Your task to perform on an android device: open sync settings in chrome Image 0: 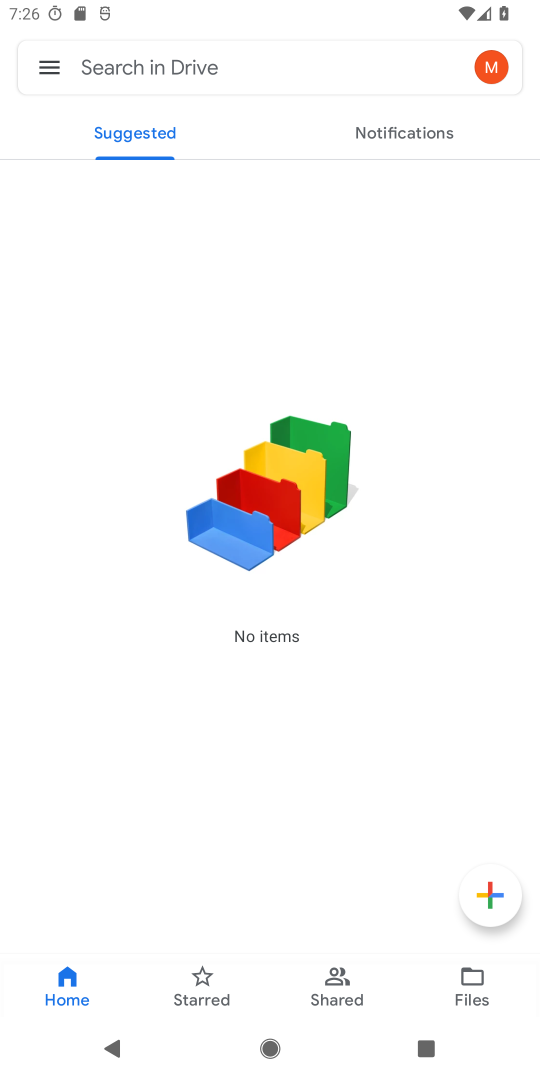
Step 0: press back button
Your task to perform on an android device: open sync settings in chrome Image 1: 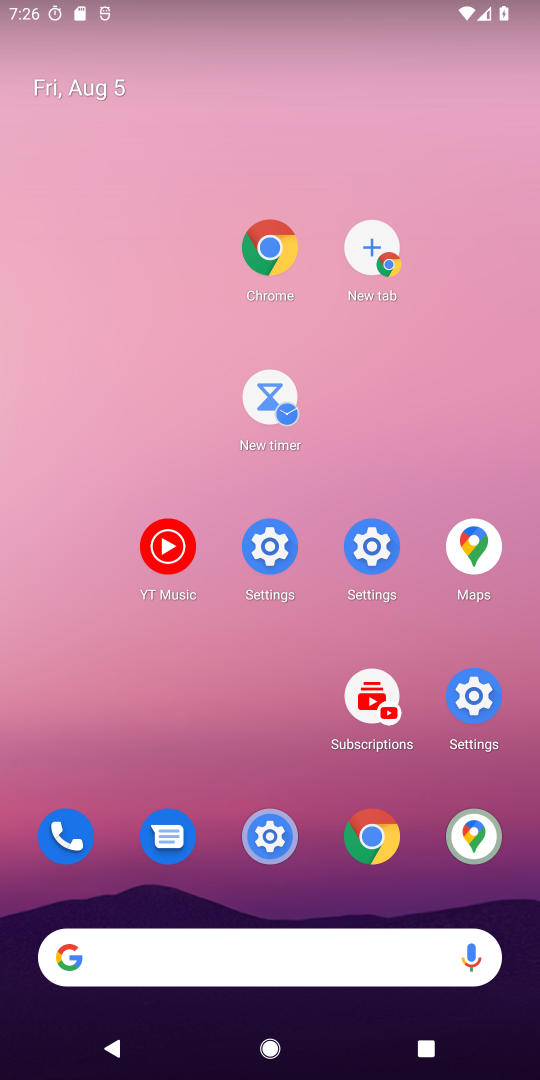
Step 1: click (193, 167)
Your task to perform on an android device: open sync settings in chrome Image 2: 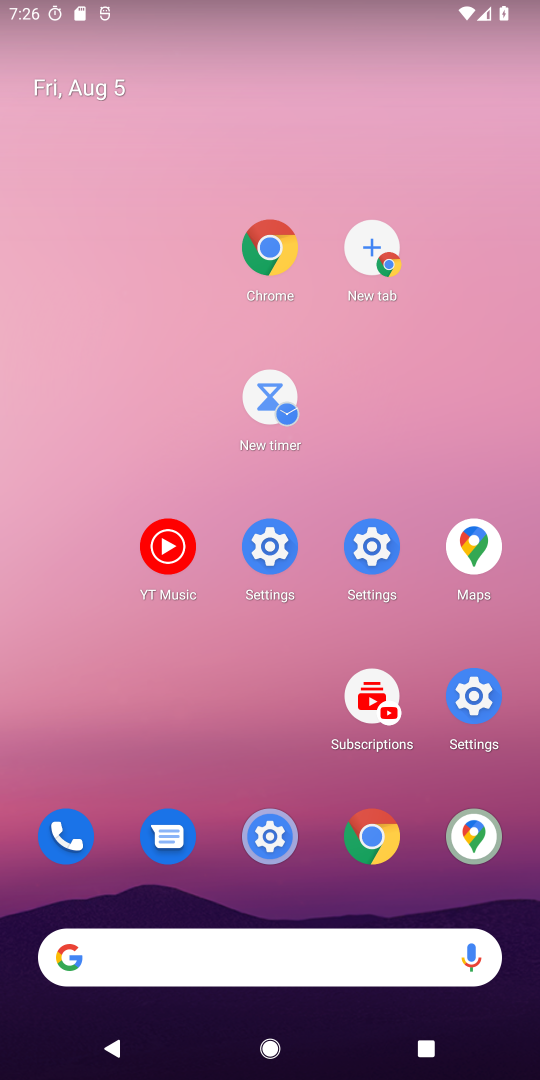
Step 2: click (226, 256)
Your task to perform on an android device: open sync settings in chrome Image 3: 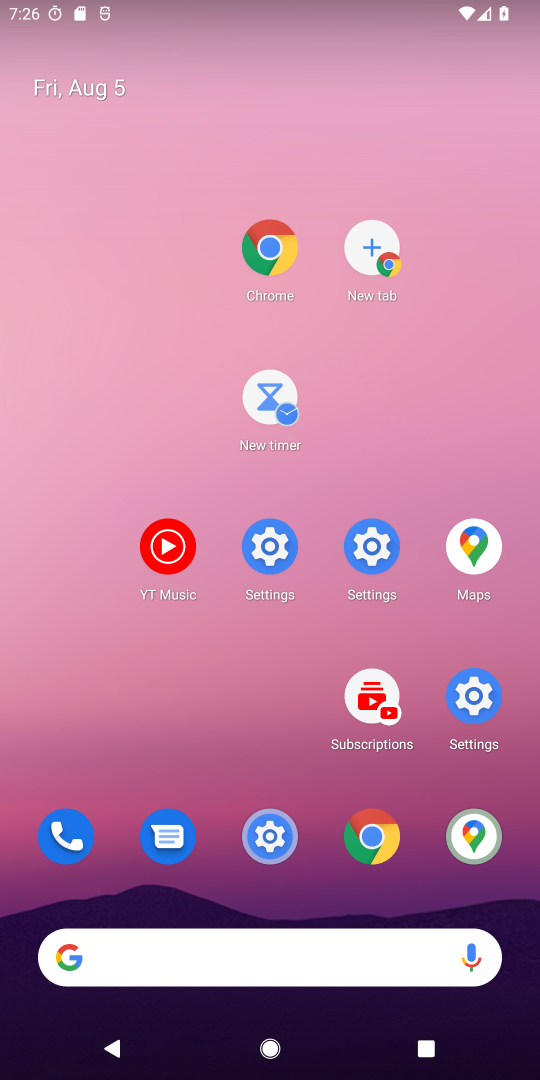
Step 3: click (233, 273)
Your task to perform on an android device: open sync settings in chrome Image 4: 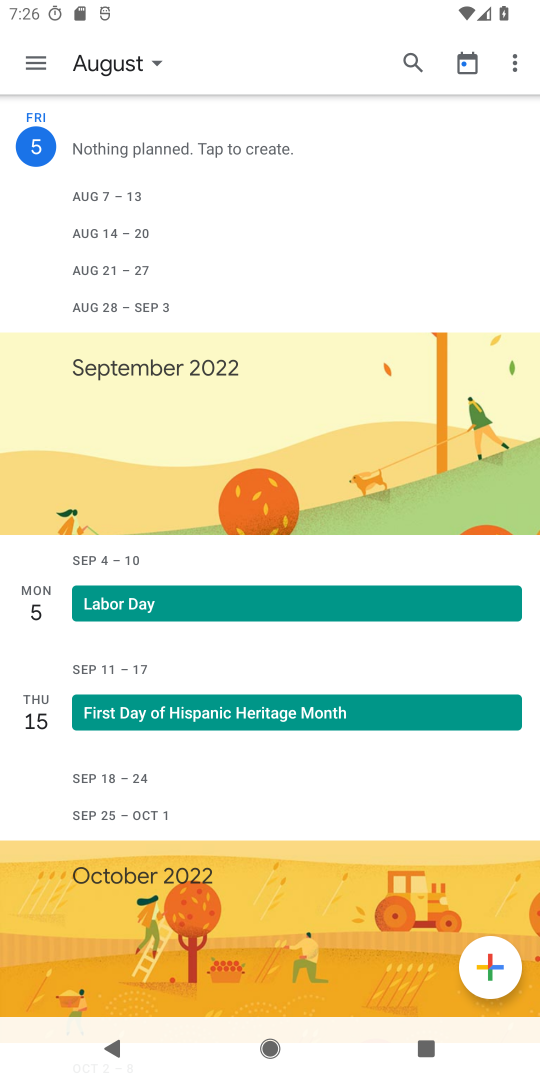
Step 4: click (156, 56)
Your task to perform on an android device: open sync settings in chrome Image 5: 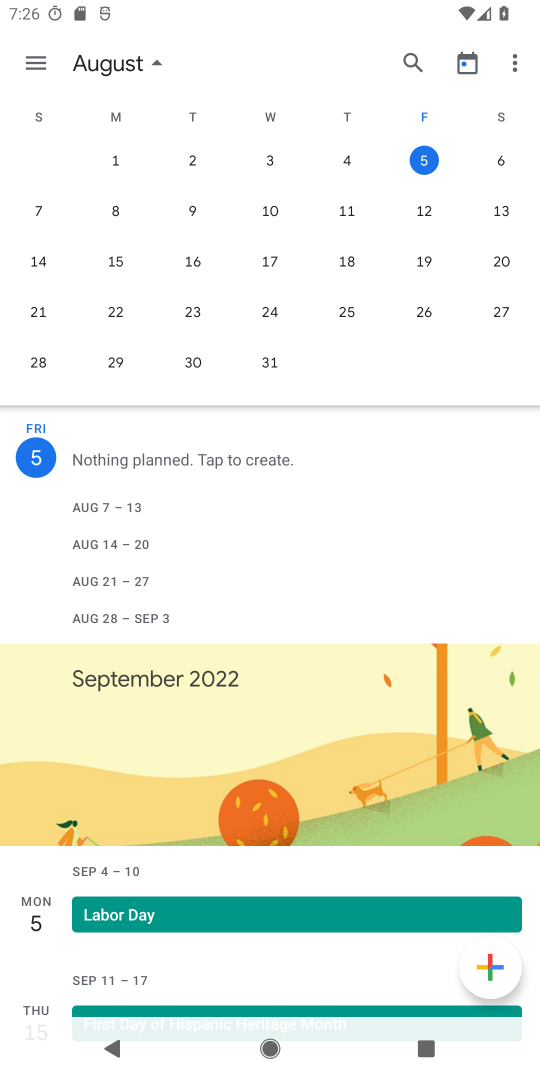
Step 5: drag from (359, 231) to (22, 301)
Your task to perform on an android device: open sync settings in chrome Image 6: 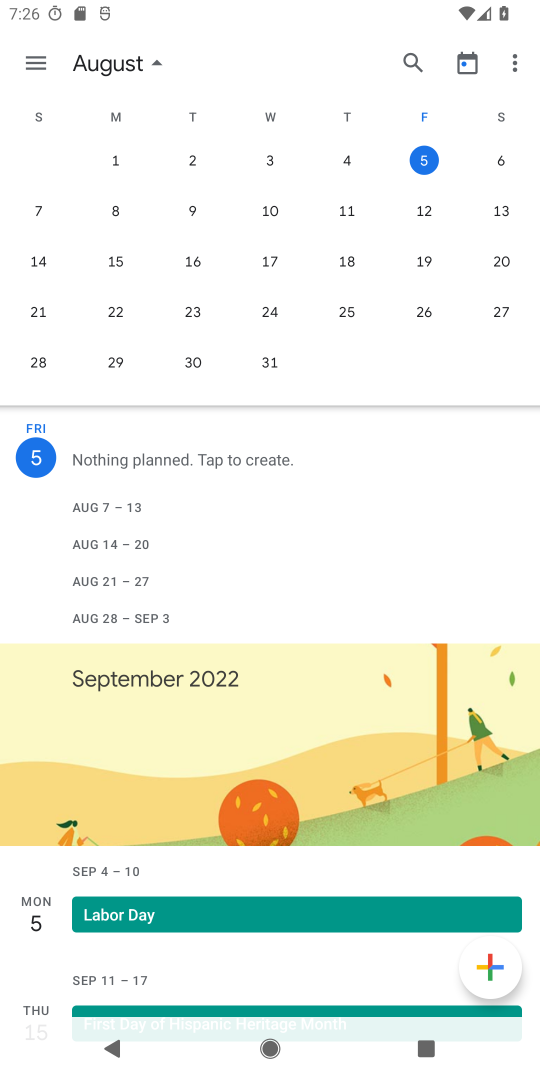
Step 6: press back button
Your task to perform on an android device: open sync settings in chrome Image 7: 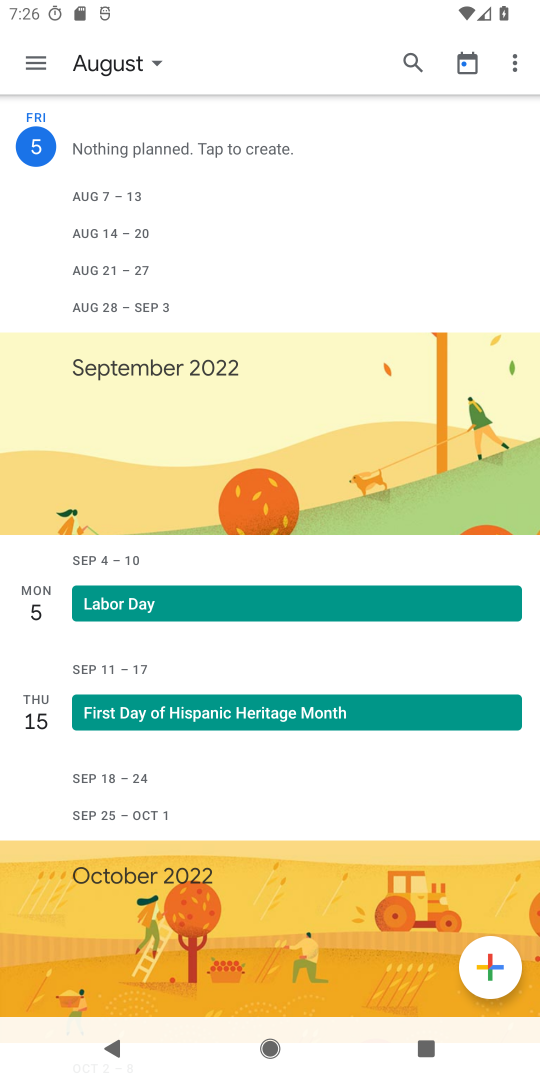
Step 7: click (148, 52)
Your task to perform on an android device: open sync settings in chrome Image 8: 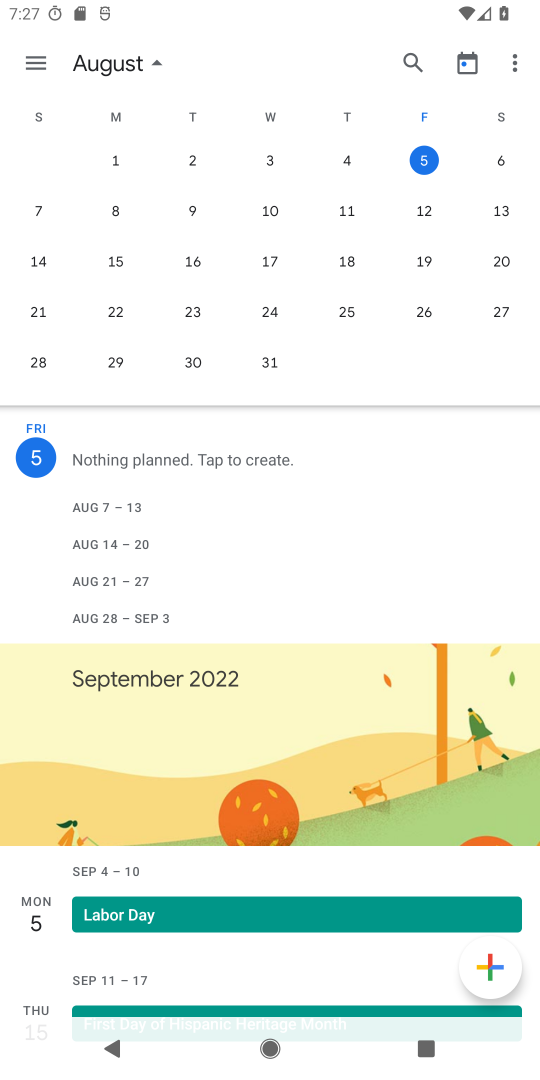
Step 8: press home button
Your task to perform on an android device: open sync settings in chrome Image 9: 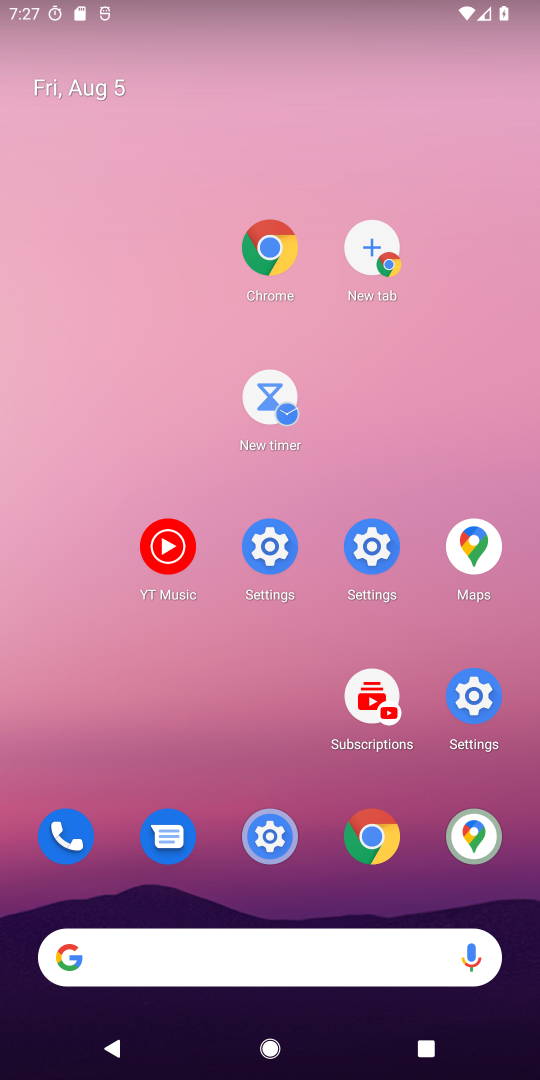
Step 9: drag from (377, 628) to (352, 134)
Your task to perform on an android device: open sync settings in chrome Image 10: 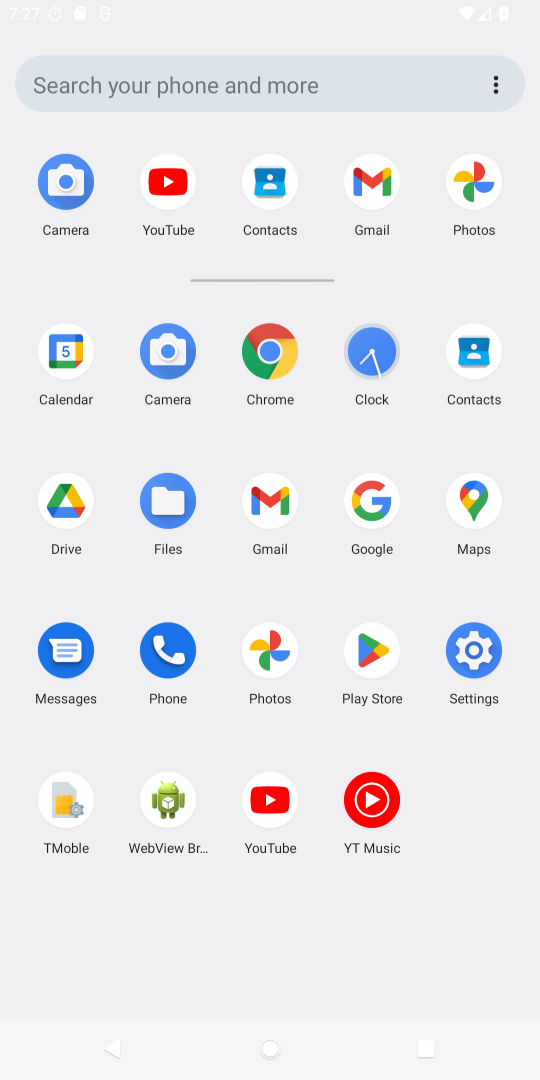
Step 10: drag from (360, 529) to (282, 209)
Your task to perform on an android device: open sync settings in chrome Image 11: 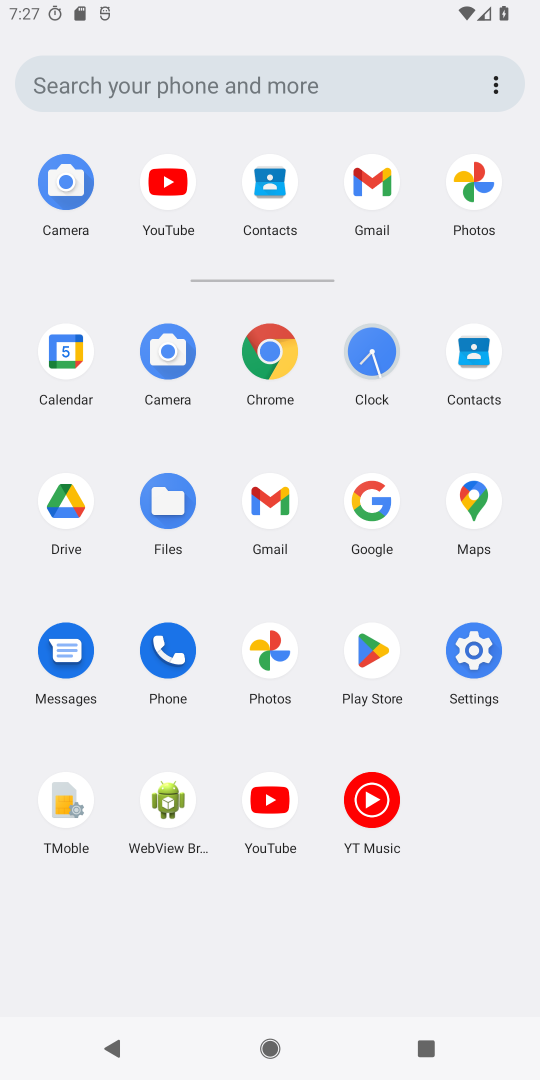
Step 11: click (260, 370)
Your task to perform on an android device: open sync settings in chrome Image 12: 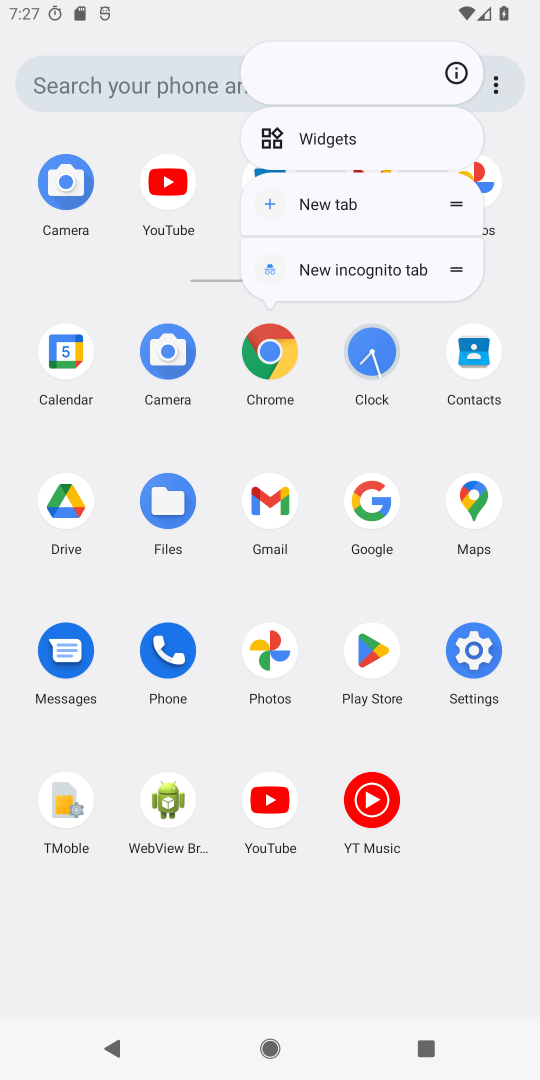
Step 12: click (260, 370)
Your task to perform on an android device: open sync settings in chrome Image 13: 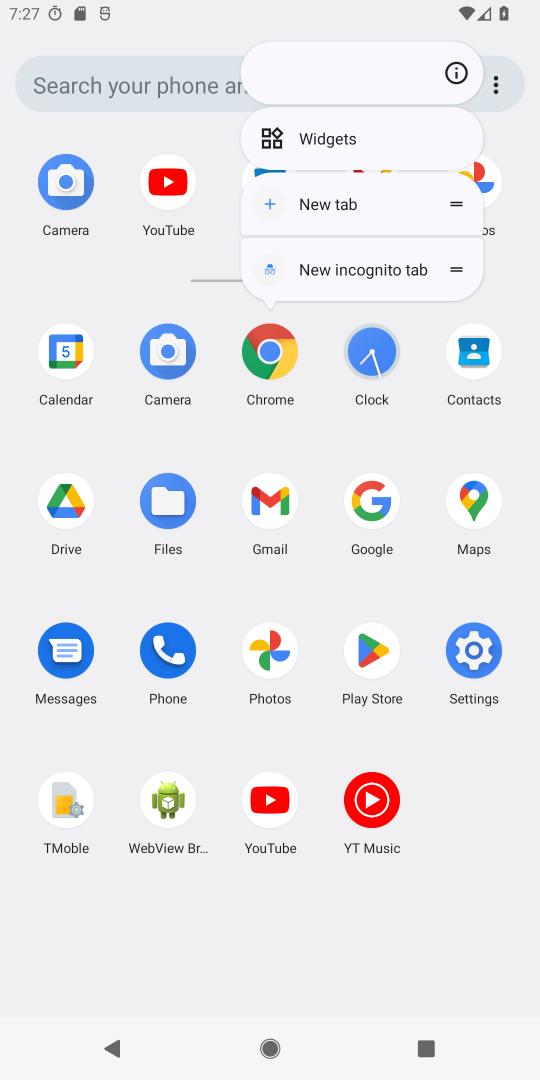
Step 13: click (263, 354)
Your task to perform on an android device: open sync settings in chrome Image 14: 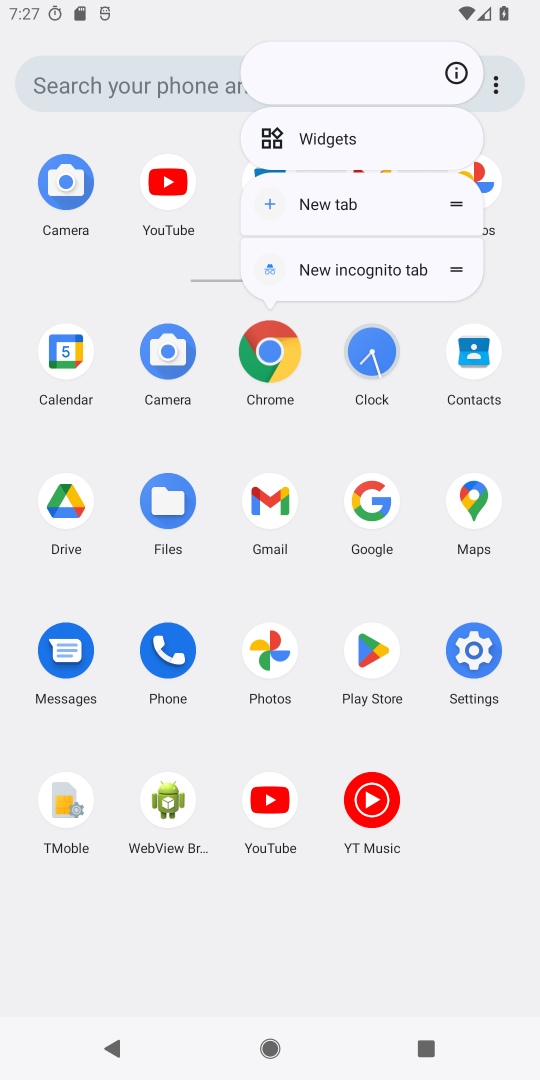
Step 14: click (261, 353)
Your task to perform on an android device: open sync settings in chrome Image 15: 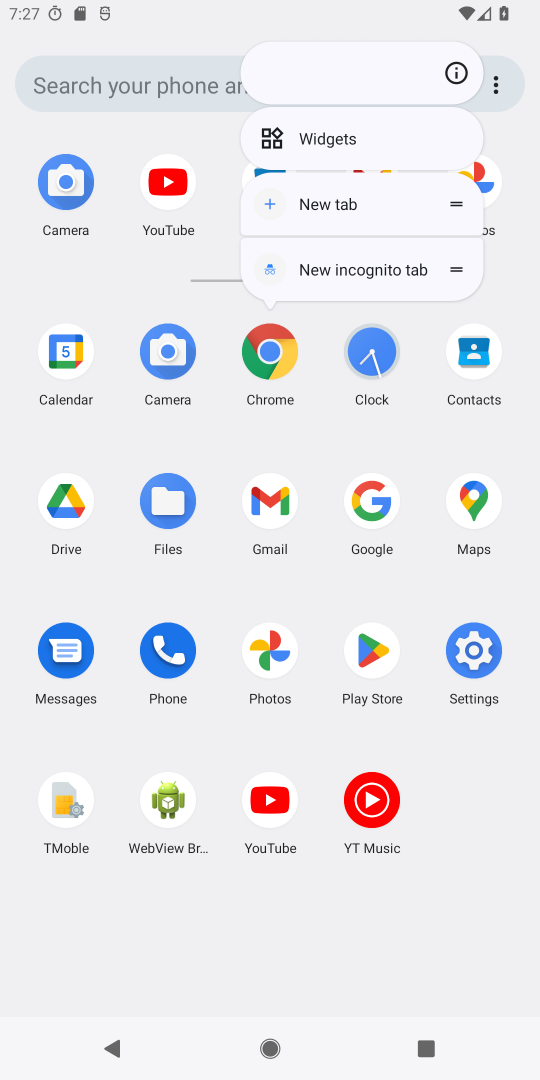
Step 15: click (260, 353)
Your task to perform on an android device: open sync settings in chrome Image 16: 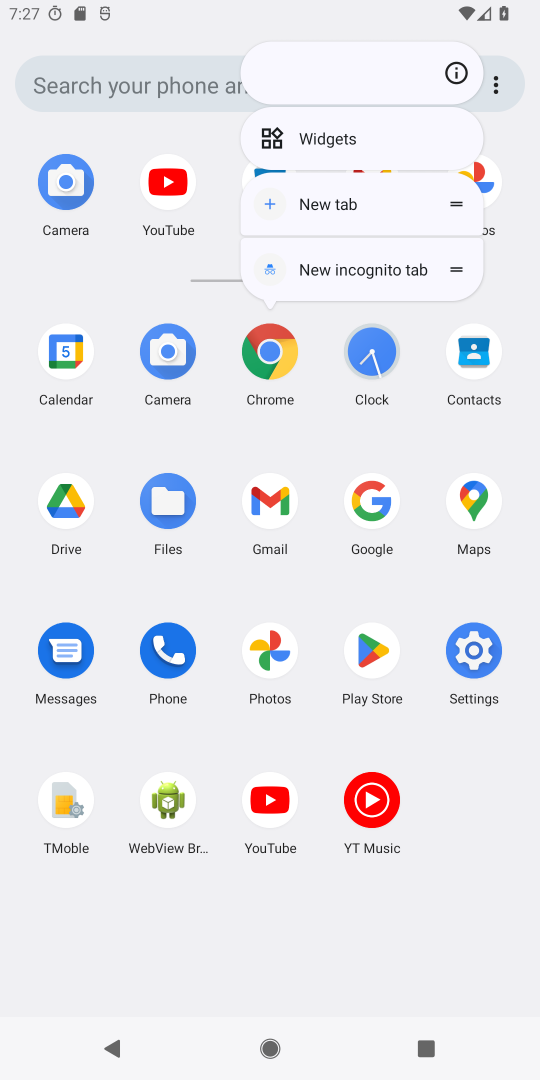
Step 16: click (260, 353)
Your task to perform on an android device: open sync settings in chrome Image 17: 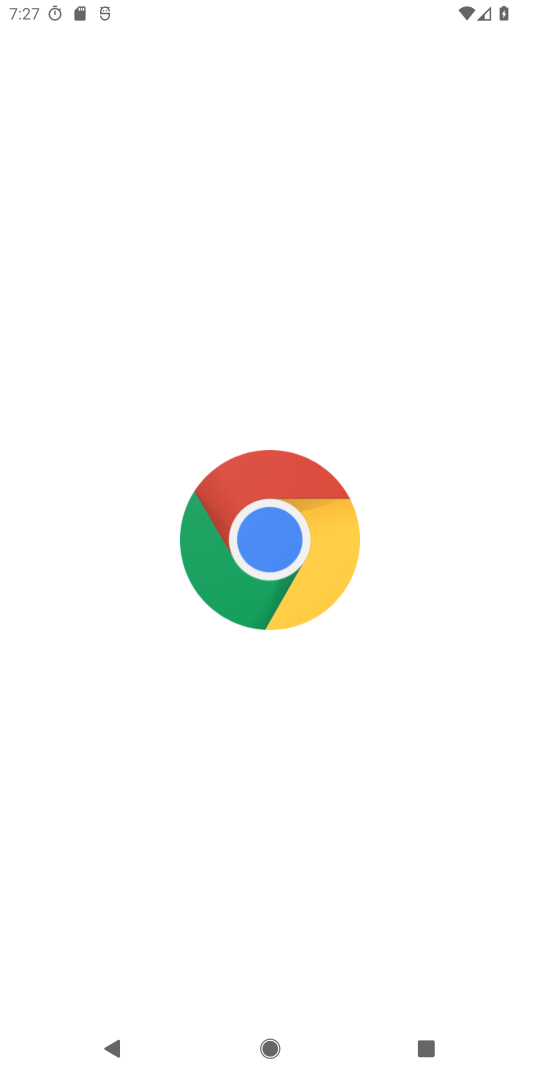
Step 17: click (260, 353)
Your task to perform on an android device: open sync settings in chrome Image 18: 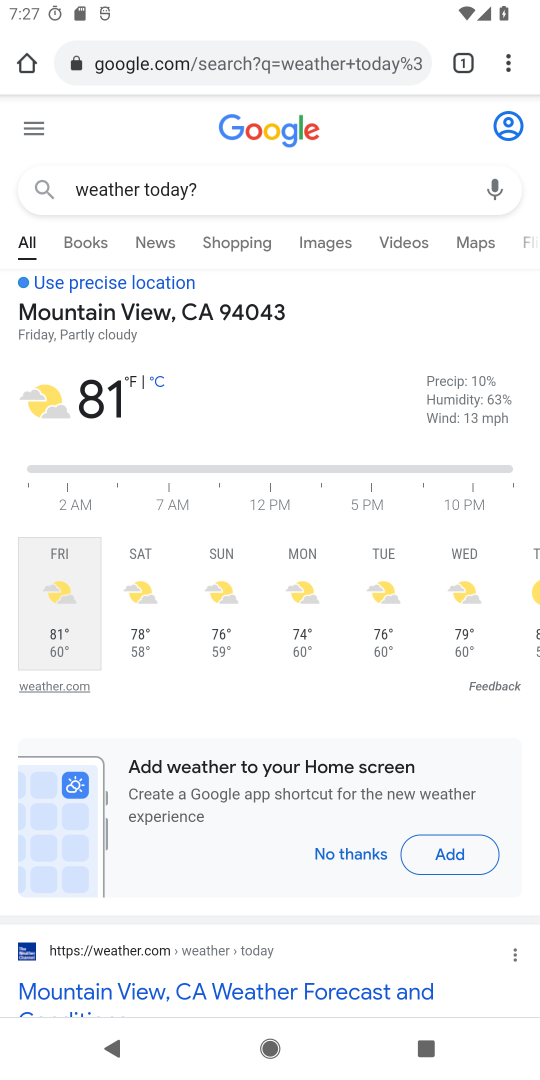
Step 18: press back button
Your task to perform on an android device: open sync settings in chrome Image 19: 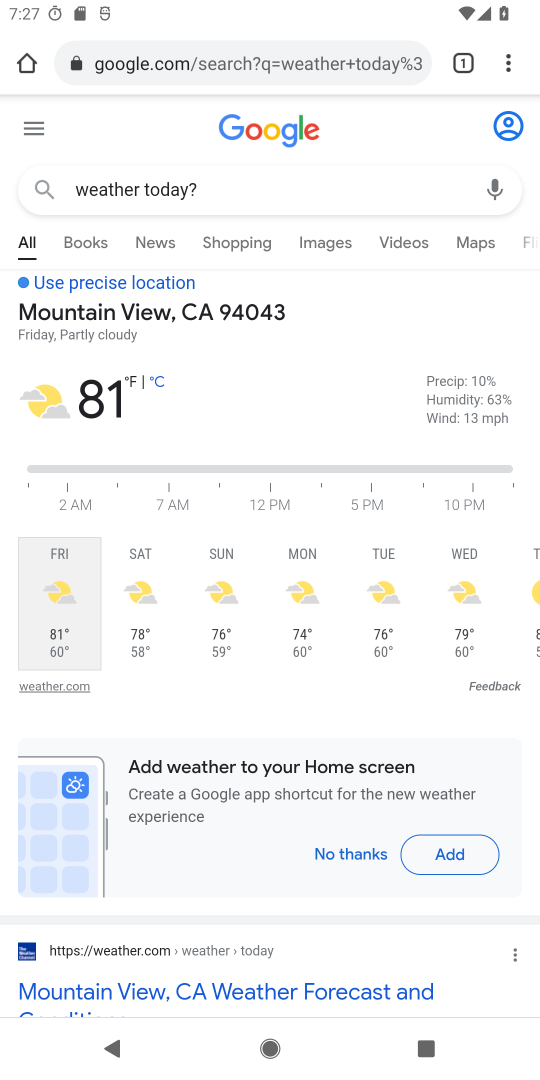
Step 19: press back button
Your task to perform on an android device: open sync settings in chrome Image 20: 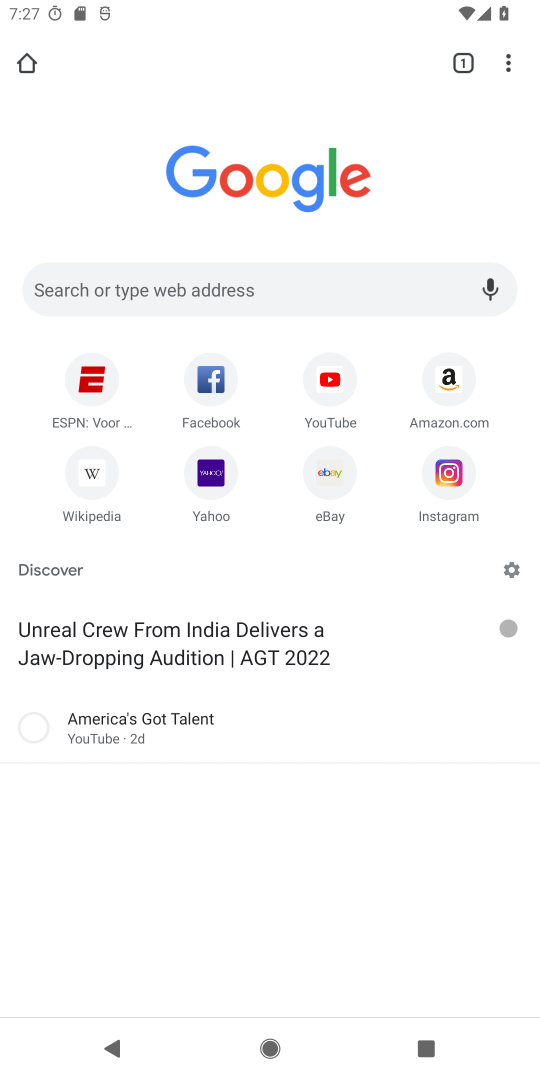
Step 20: press back button
Your task to perform on an android device: open sync settings in chrome Image 21: 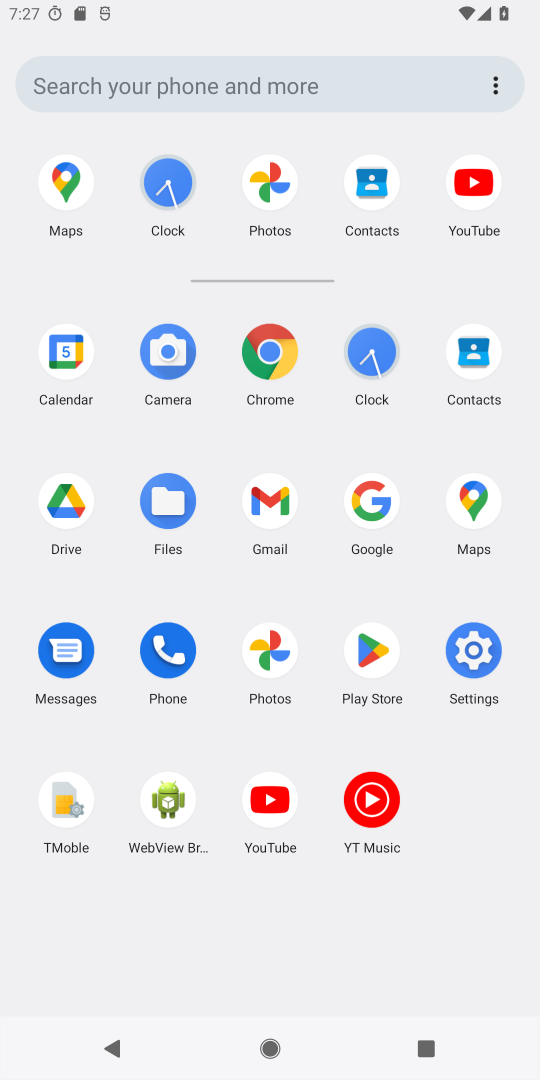
Step 21: press back button
Your task to perform on an android device: open sync settings in chrome Image 22: 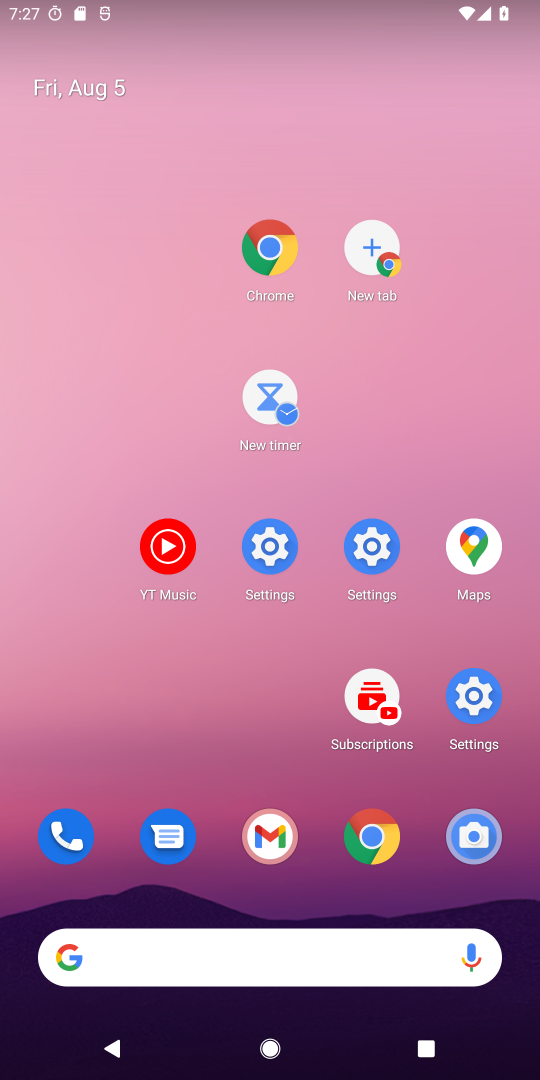
Step 22: click (151, 278)
Your task to perform on an android device: open sync settings in chrome Image 23: 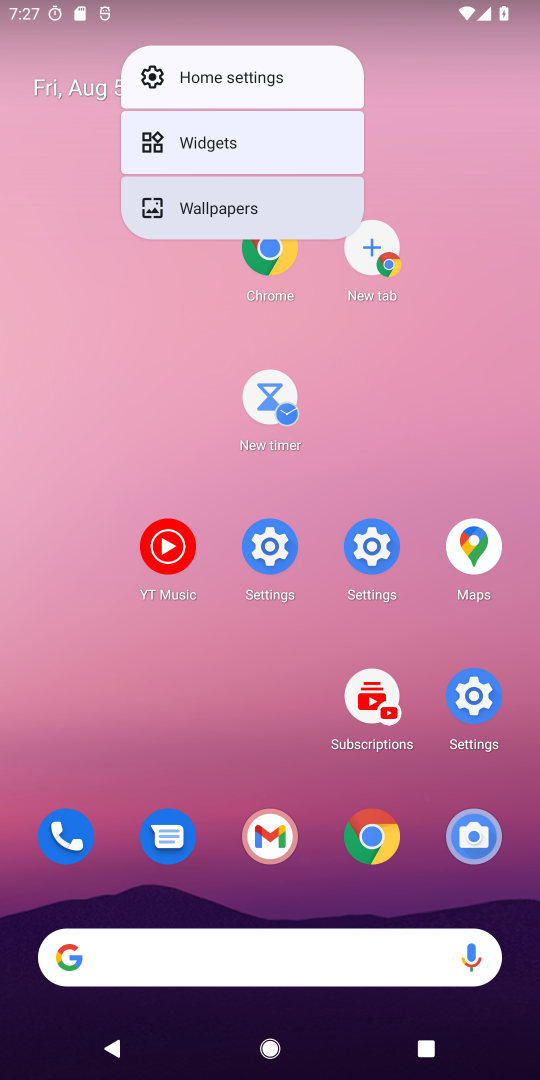
Step 23: drag from (308, 762) to (308, 314)
Your task to perform on an android device: open sync settings in chrome Image 24: 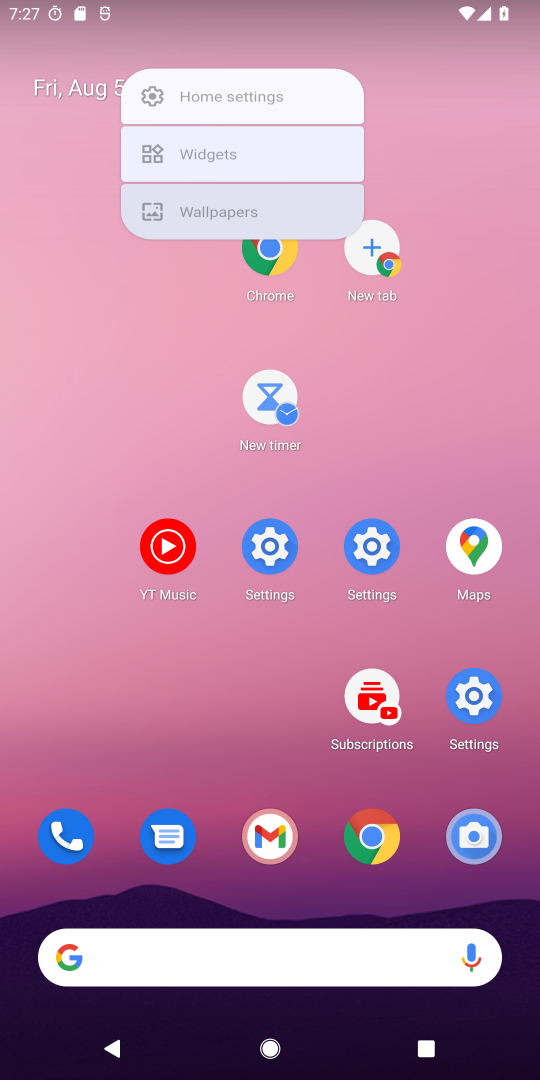
Step 24: drag from (297, 443) to (264, 210)
Your task to perform on an android device: open sync settings in chrome Image 25: 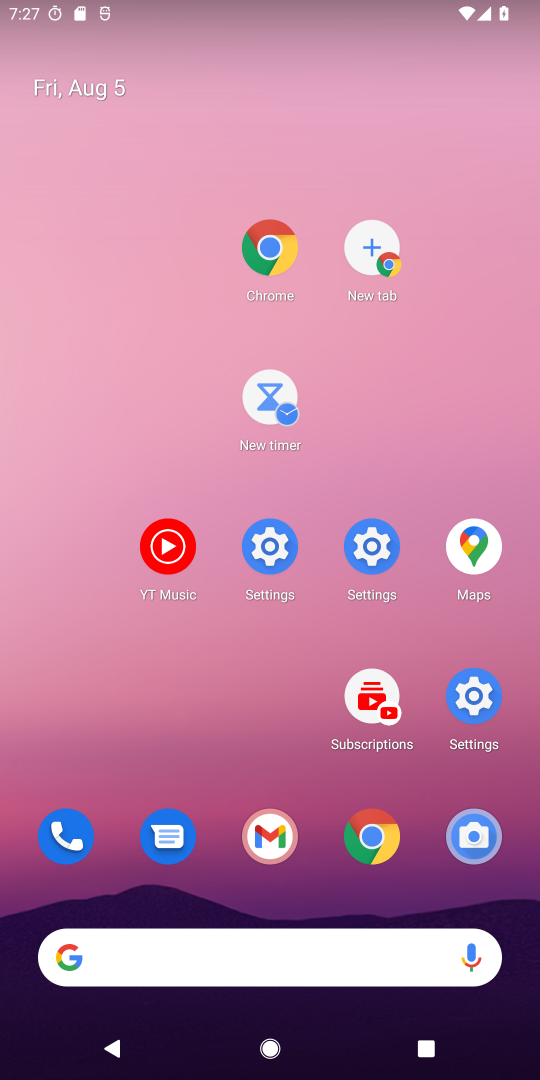
Step 25: drag from (236, 476) to (246, 122)
Your task to perform on an android device: open sync settings in chrome Image 26: 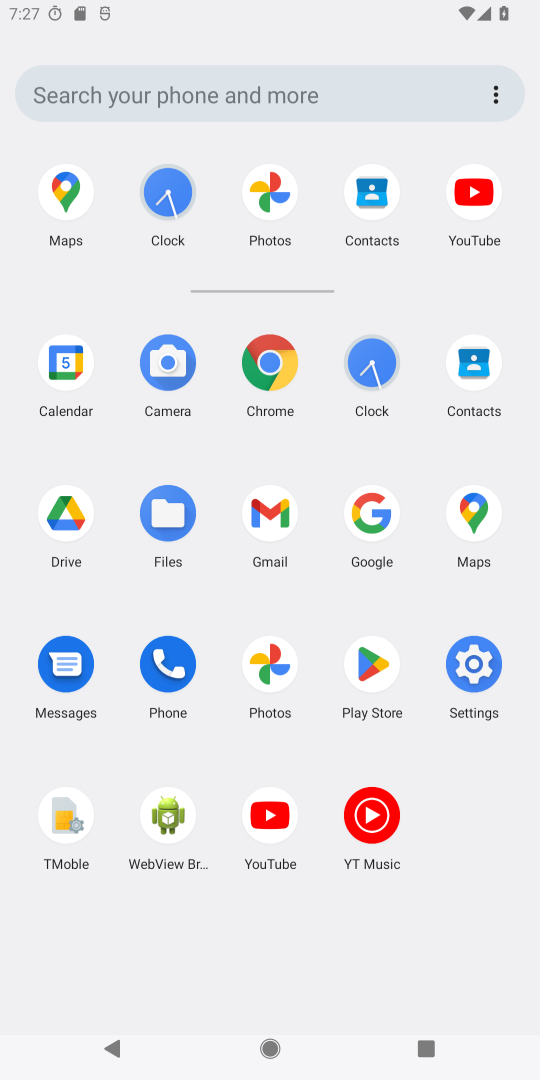
Step 26: drag from (346, 691) to (268, 344)
Your task to perform on an android device: open sync settings in chrome Image 27: 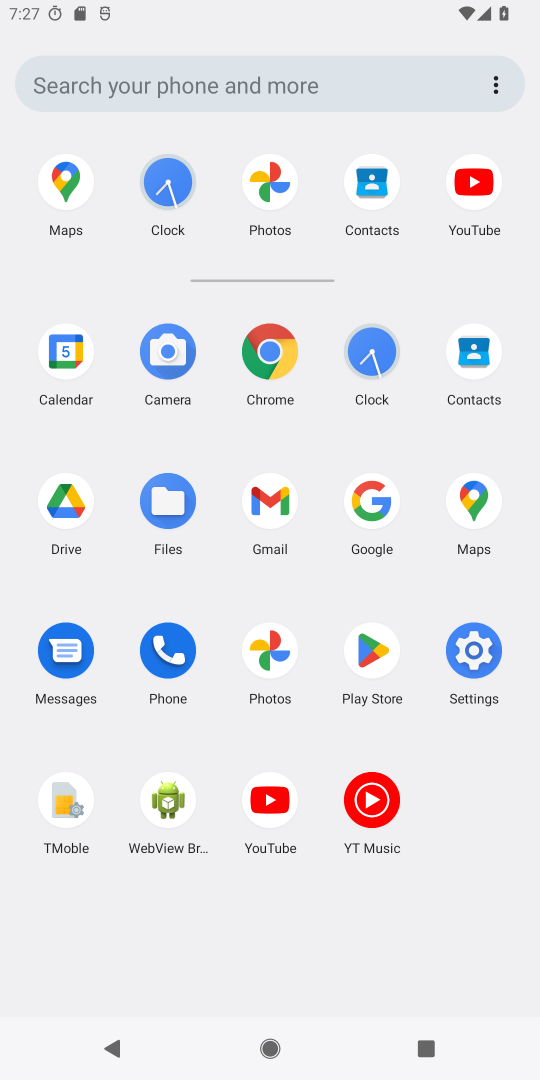
Step 27: click (113, 79)
Your task to perform on an android device: open sync settings in chrome Image 28: 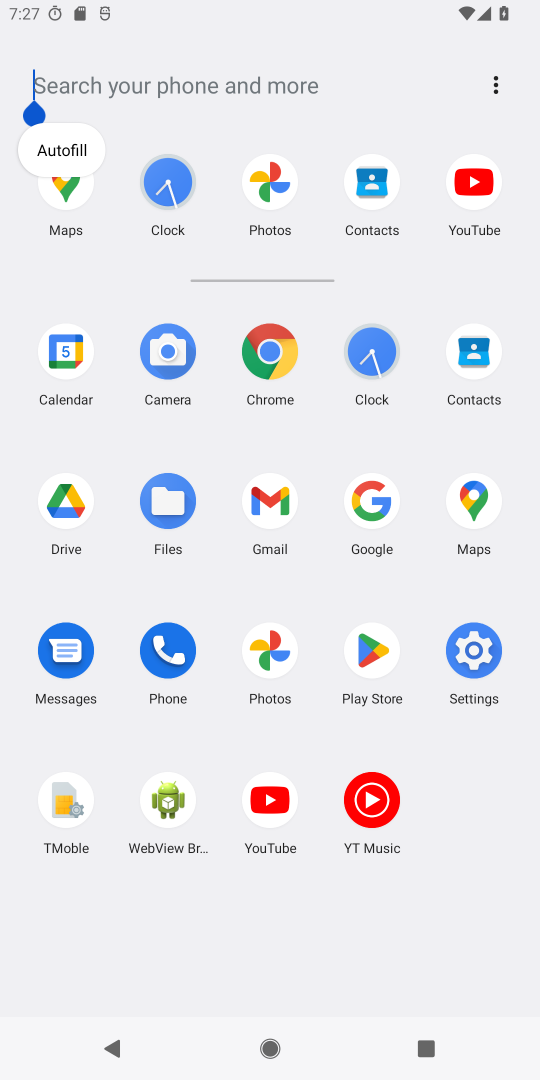
Step 28: click (267, 350)
Your task to perform on an android device: open sync settings in chrome Image 29: 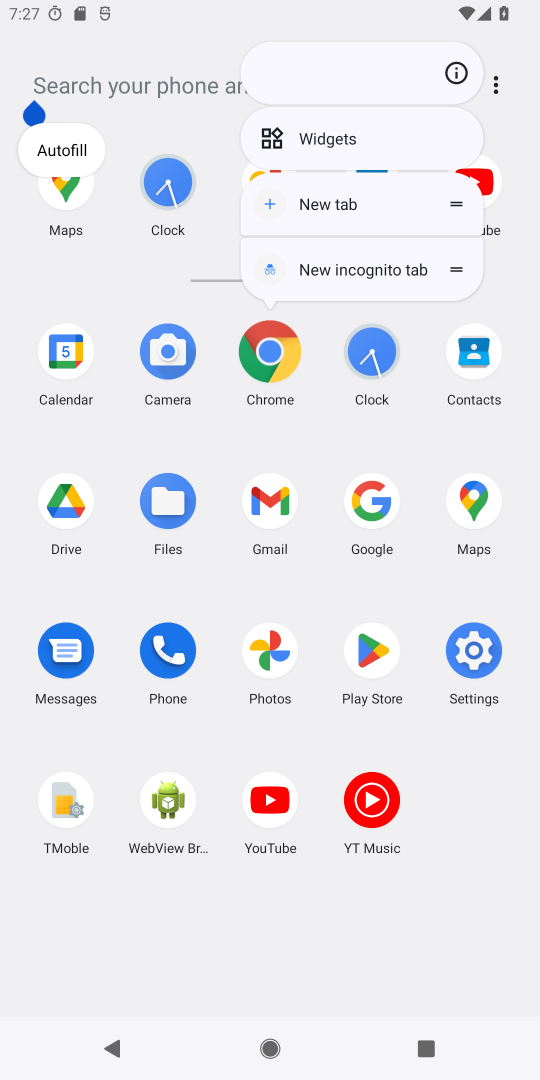
Step 29: click (267, 350)
Your task to perform on an android device: open sync settings in chrome Image 30: 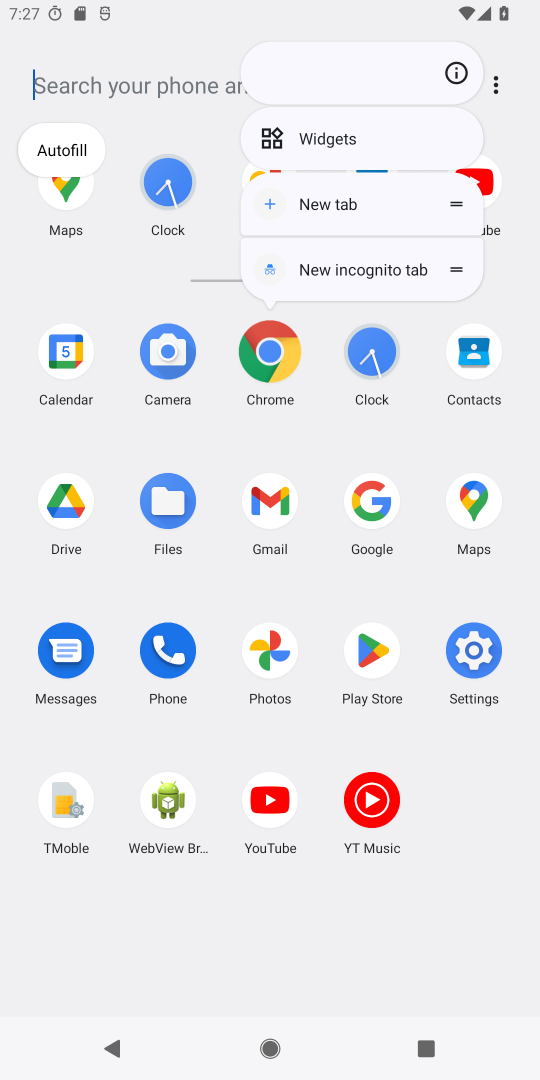
Step 30: click (267, 350)
Your task to perform on an android device: open sync settings in chrome Image 31: 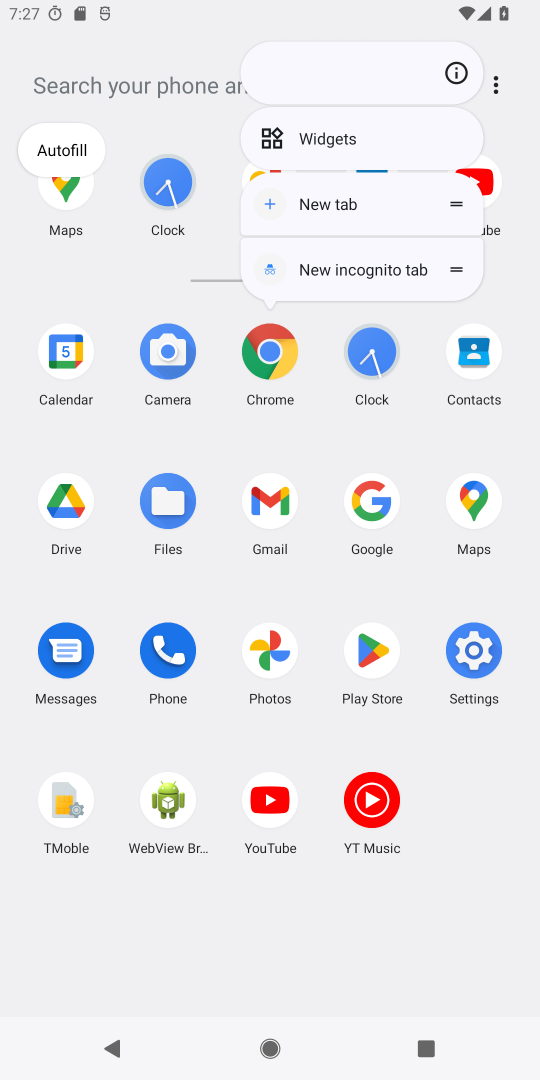
Step 31: click (267, 350)
Your task to perform on an android device: open sync settings in chrome Image 32: 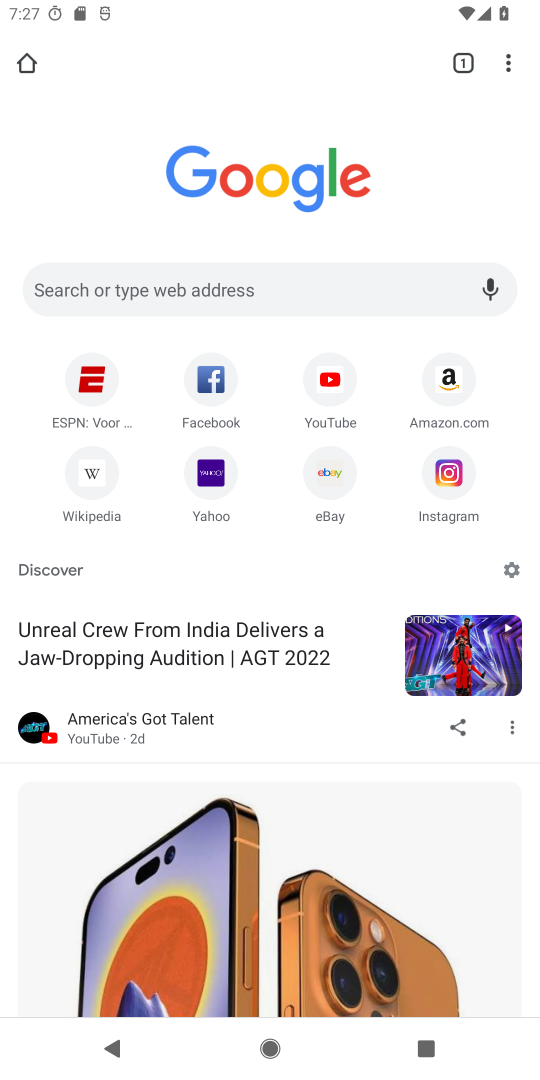
Step 32: drag from (497, 51) to (291, 733)
Your task to perform on an android device: open sync settings in chrome Image 33: 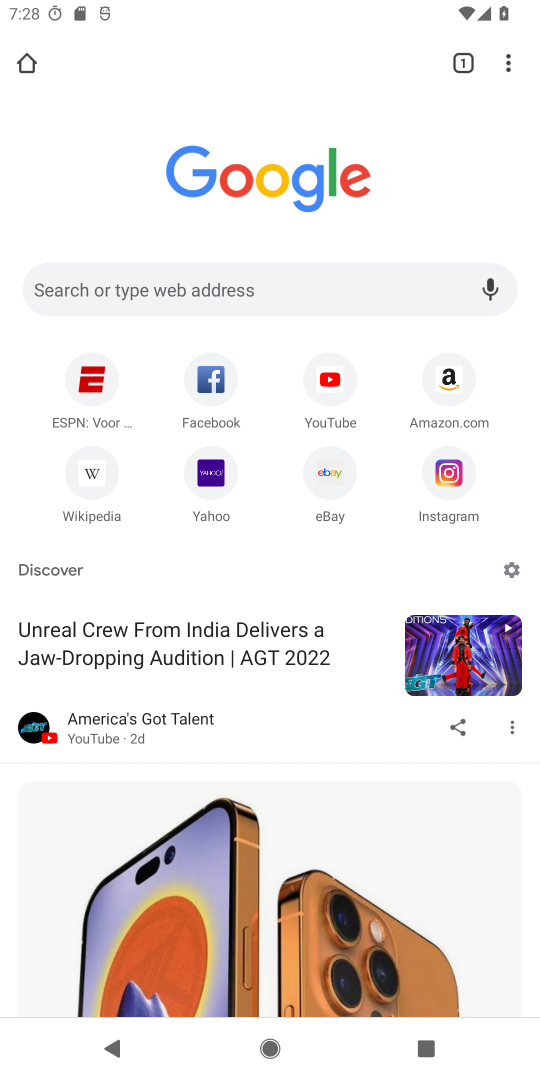
Step 33: drag from (499, 41) to (342, 528)
Your task to perform on an android device: open sync settings in chrome Image 34: 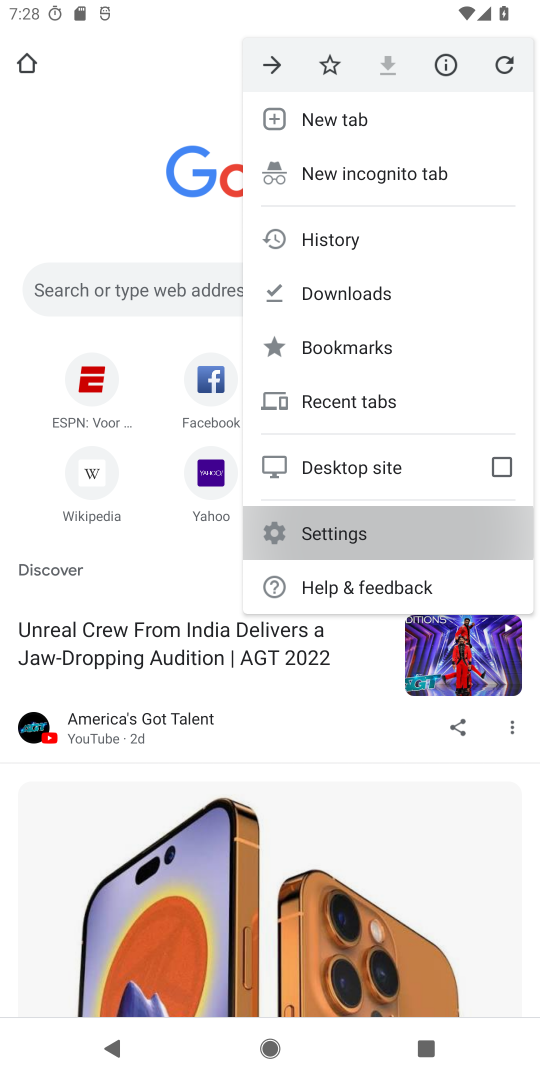
Step 34: click (339, 529)
Your task to perform on an android device: open sync settings in chrome Image 35: 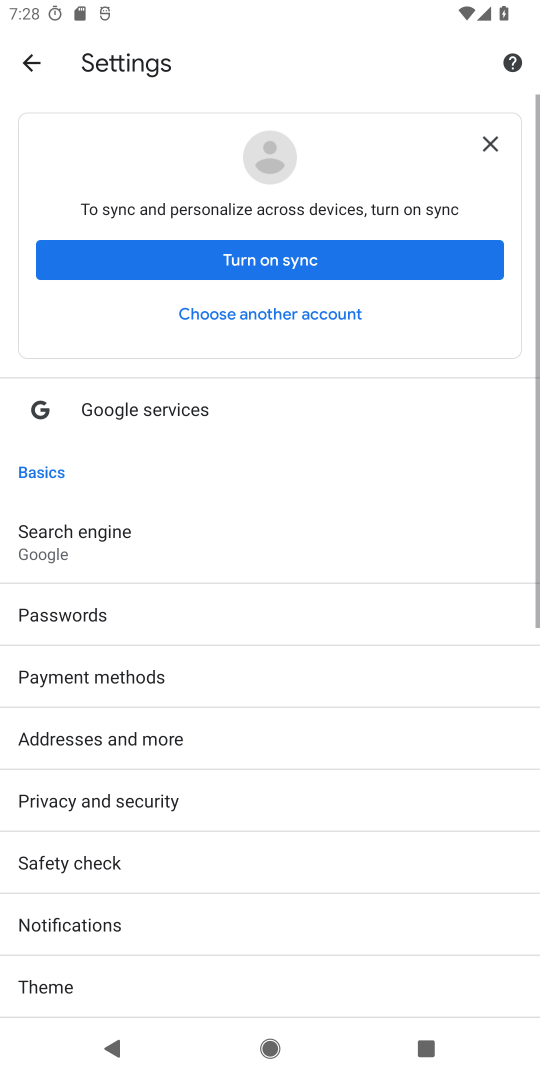
Step 35: drag from (342, 658) to (314, 293)
Your task to perform on an android device: open sync settings in chrome Image 36: 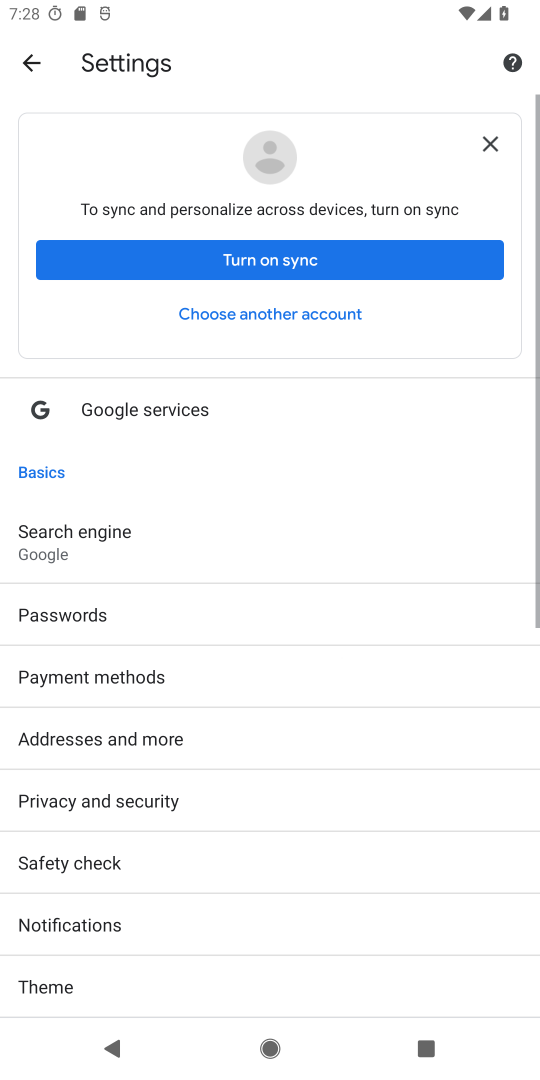
Step 36: drag from (281, 711) to (162, 264)
Your task to perform on an android device: open sync settings in chrome Image 37: 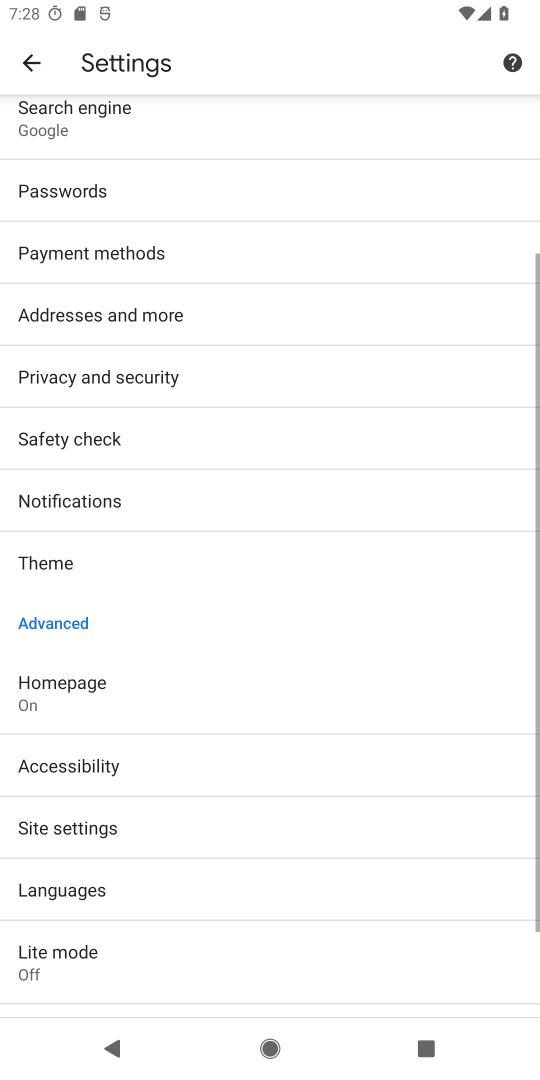
Step 37: drag from (233, 695) to (216, 251)
Your task to perform on an android device: open sync settings in chrome Image 38: 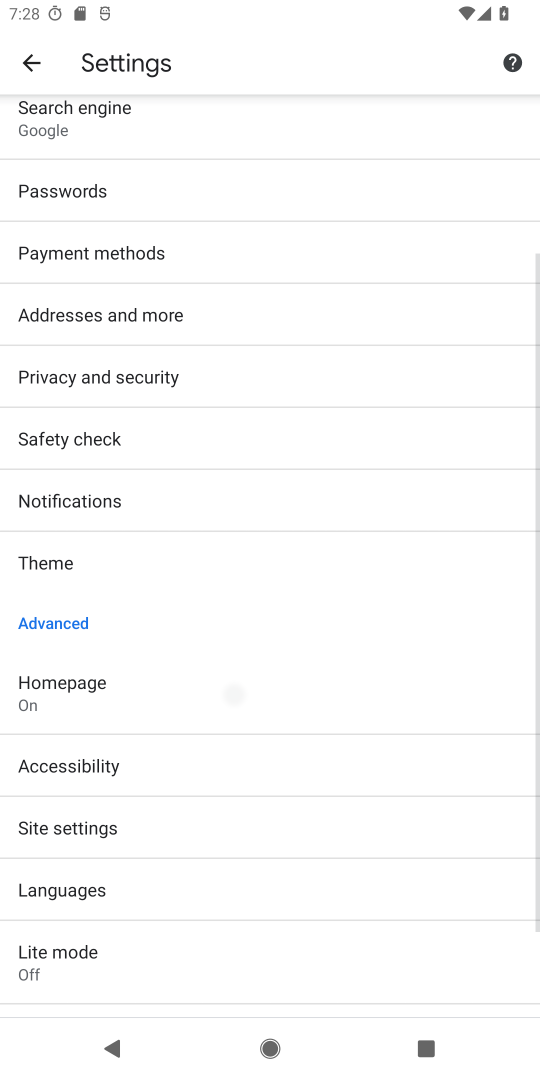
Step 38: drag from (267, 739) to (223, 318)
Your task to perform on an android device: open sync settings in chrome Image 39: 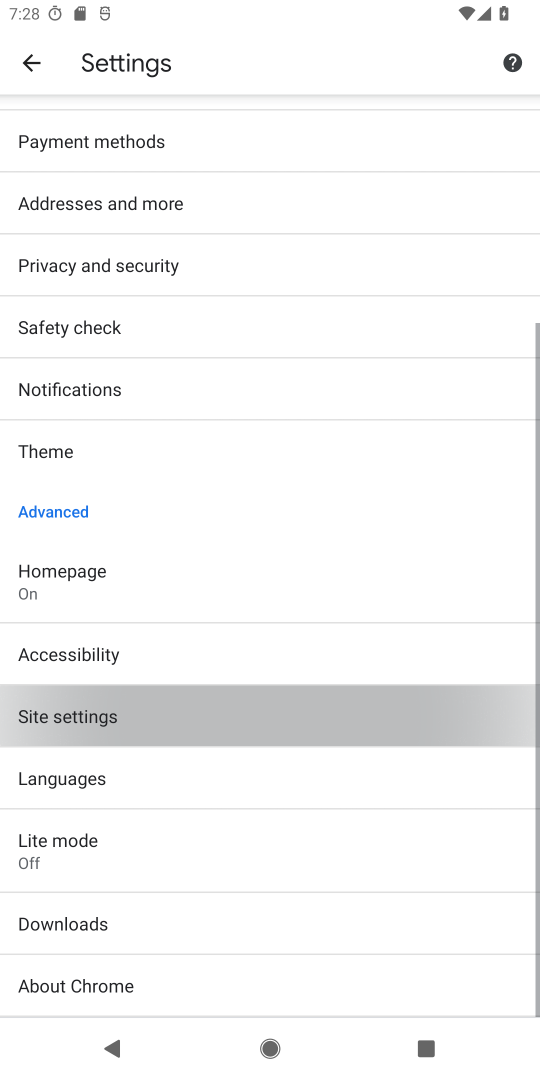
Step 39: click (232, 665)
Your task to perform on an android device: open sync settings in chrome Image 40: 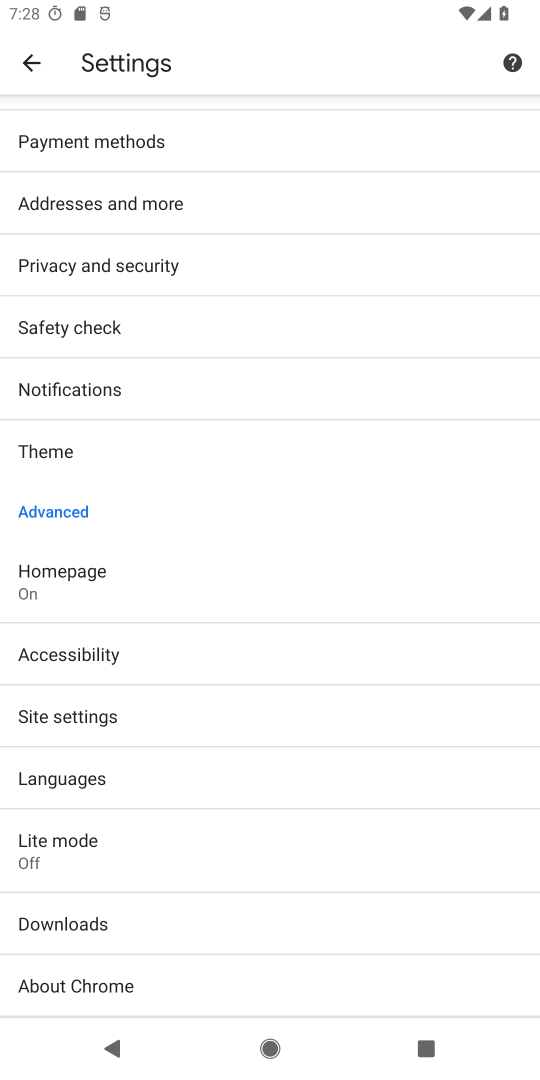
Step 40: click (60, 721)
Your task to perform on an android device: open sync settings in chrome Image 41: 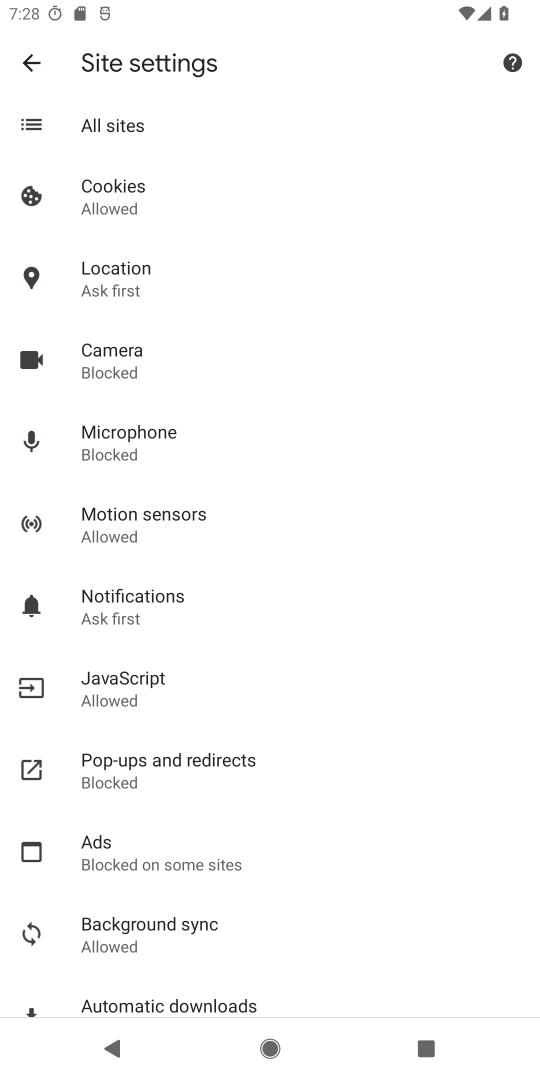
Step 41: click (115, 936)
Your task to perform on an android device: open sync settings in chrome Image 42: 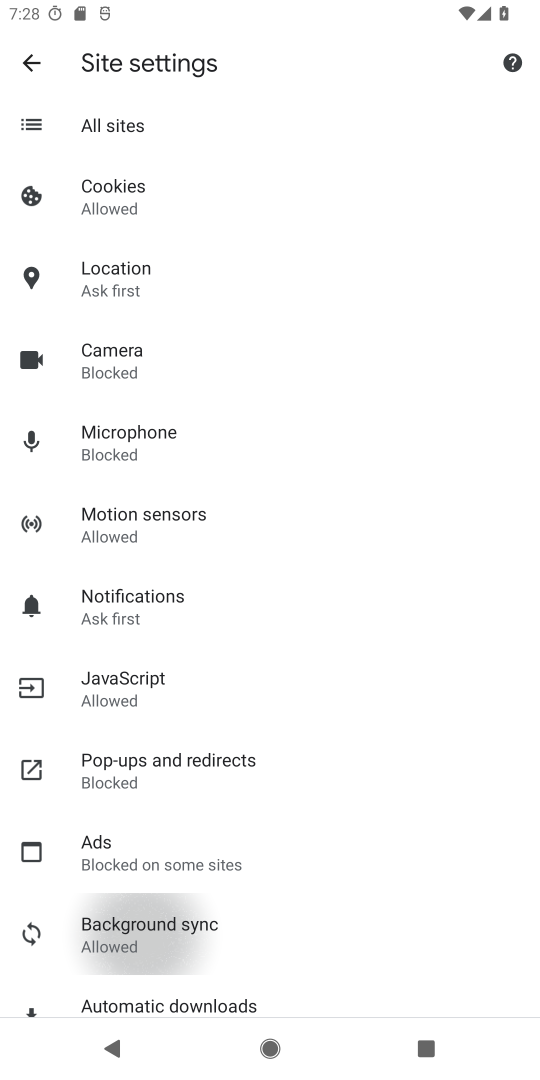
Step 42: click (103, 932)
Your task to perform on an android device: open sync settings in chrome Image 43: 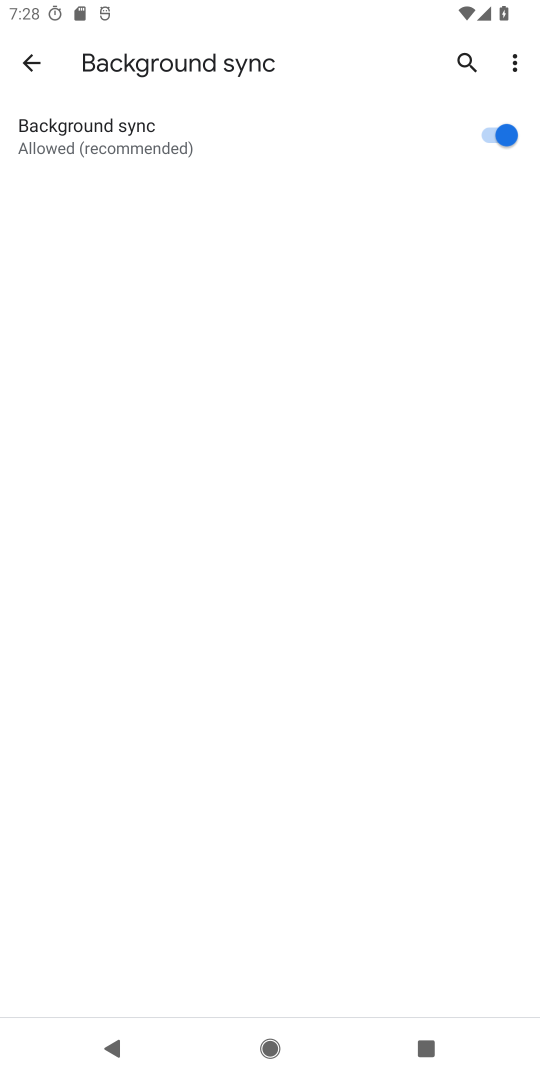
Step 43: task complete